Your task to perform on an android device: Show me the alarms in the clock app Image 0: 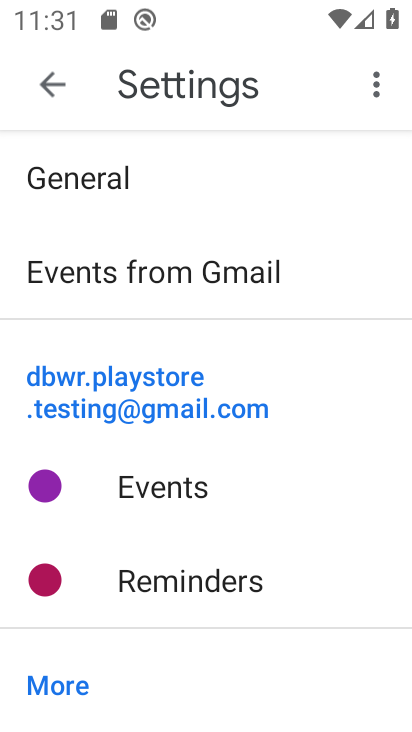
Step 0: press home button
Your task to perform on an android device: Show me the alarms in the clock app Image 1: 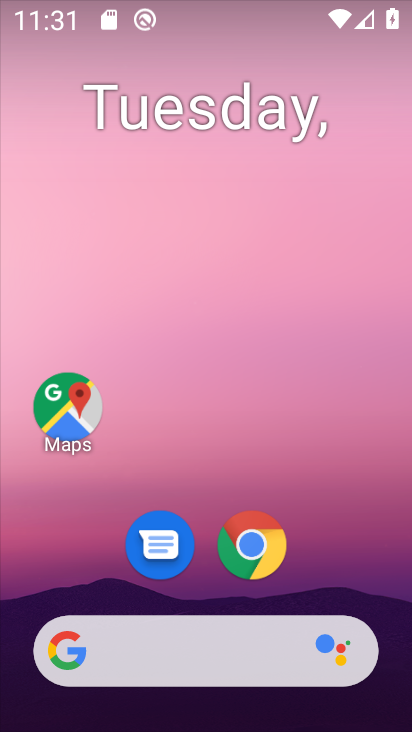
Step 1: drag from (344, 453) to (326, 86)
Your task to perform on an android device: Show me the alarms in the clock app Image 2: 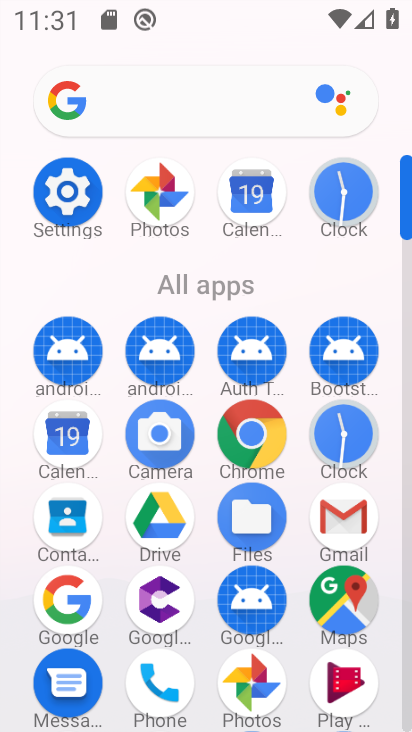
Step 2: click (345, 427)
Your task to perform on an android device: Show me the alarms in the clock app Image 3: 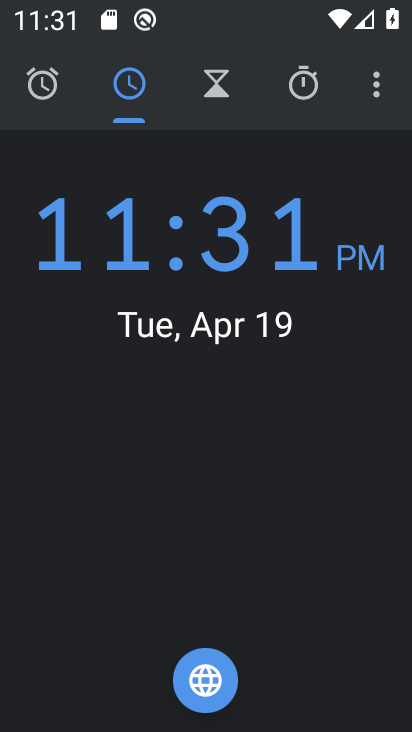
Step 3: click (49, 84)
Your task to perform on an android device: Show me the alarms in the clock app Image 4: 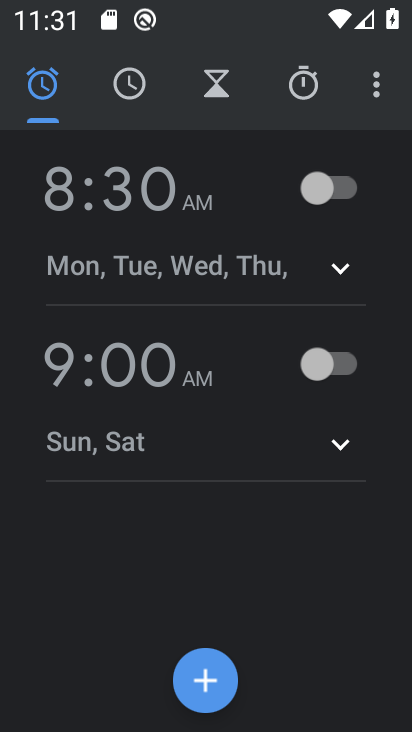
Step 4: task complete